Your task to perform on an android device: turn on showing notifications on the lock screen Image 0: 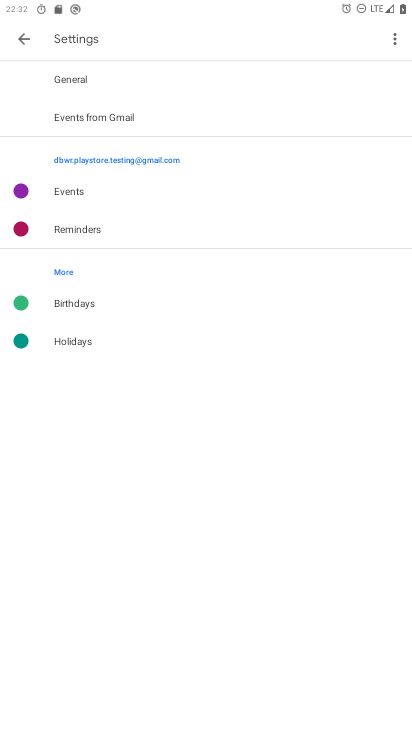
Step 0: click (187, 584)
Your task to perform on an android device: turn on showing notifications on the lock screen Image 1: 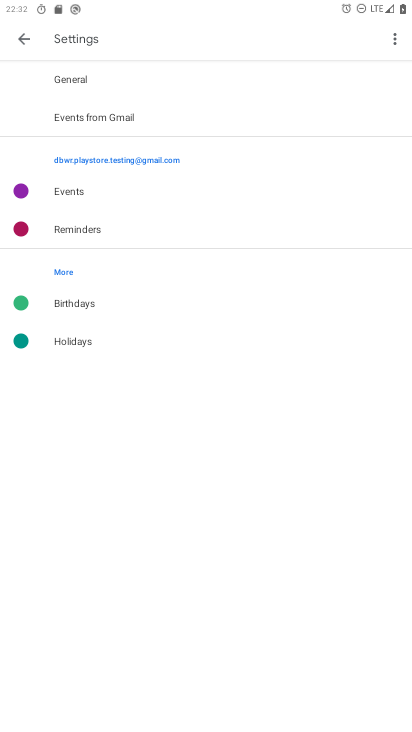
Step 1: press home button
Your task to perform on an android device: turn on showing notifications on the lock screen Image 2: 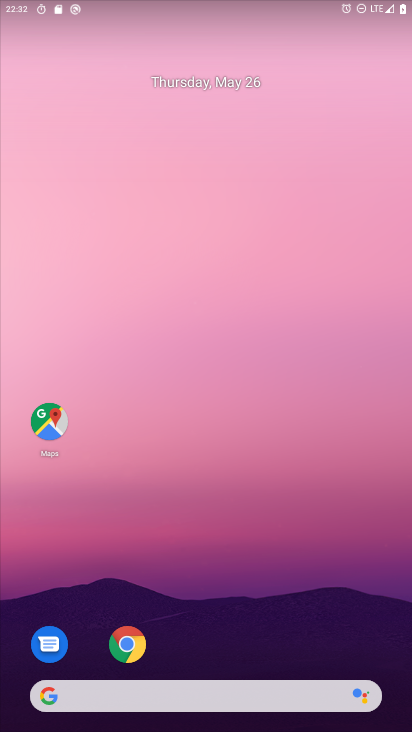
Step 2: drag from (178, 656) to (221, 169)
Your task to perform on an android device: turn on showing notifications on the lock screen Image 3: 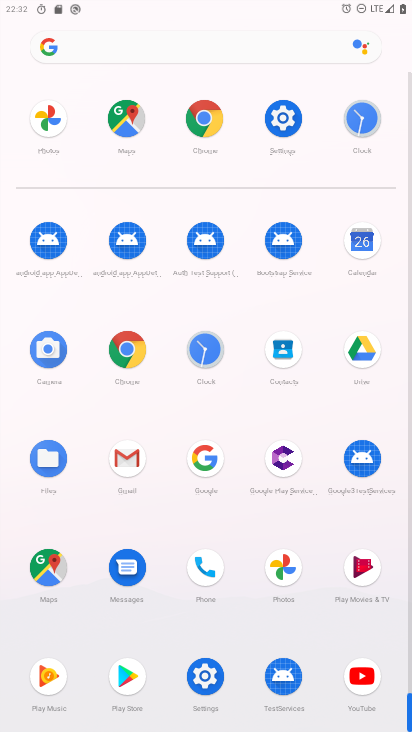
Step 3: click (286, 136)
Your task to perform on an android device: turn on showing notifications on the lock screen Image 4: 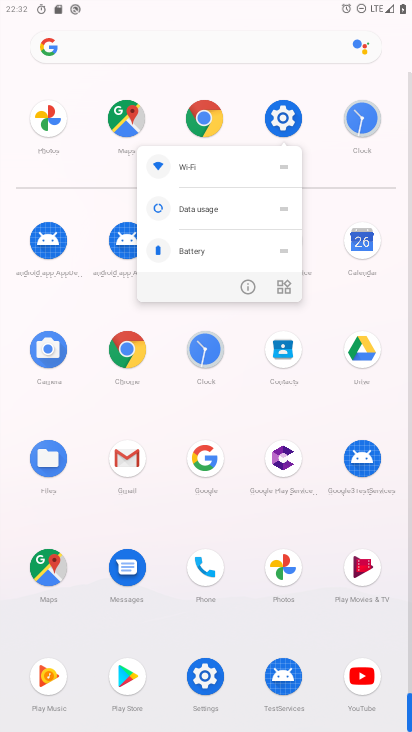
Step 4: click (255, 298)
Your task to perform on an android device: turn on showing notifications on the lock screen Image 5: 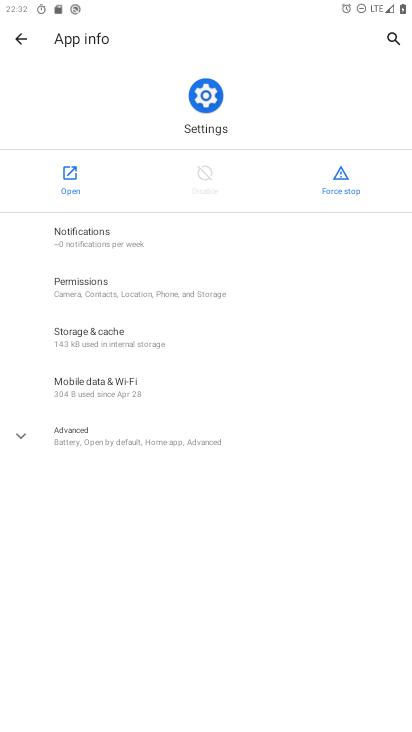
Step 5: click (79, 183)
Your task to perform on an android device: turn on showing notifications on the lock screen Image 6: 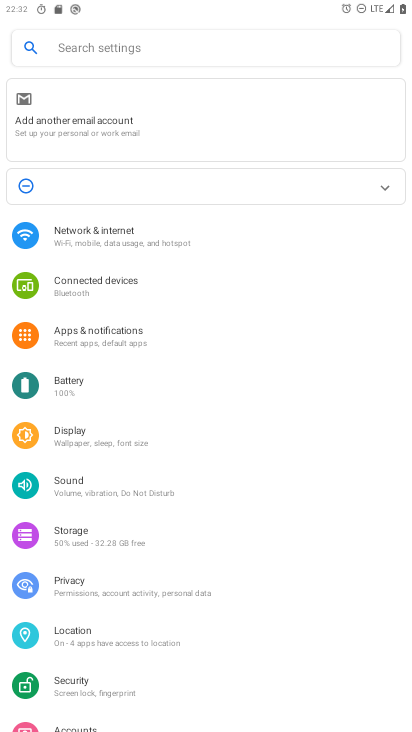
Step 6: click (140, 350)
Your task to perform on an android device: turn on showing notifications on the lock screen Image 7: 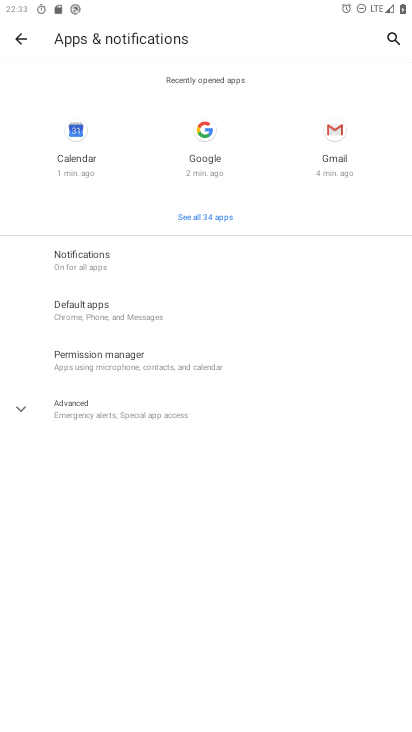
Step 7: click (134, 263)
Your task to perform on an android device: turn on showing notifications on the lock screen Image 8: 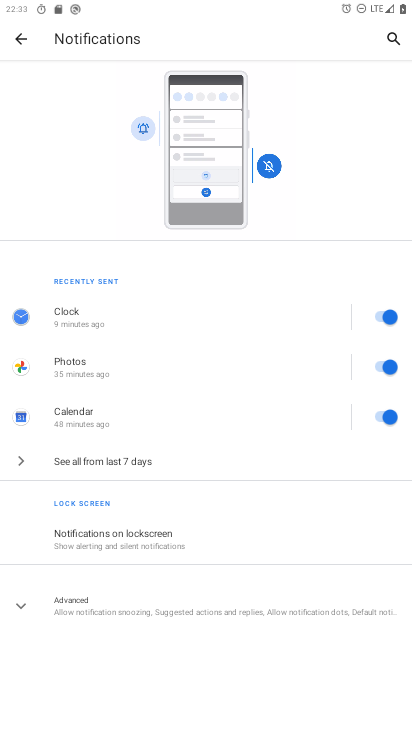
Step 8: click (183, 553)
Your task to perform on an android device: turn on showing notifications on the lock screen Image 9: 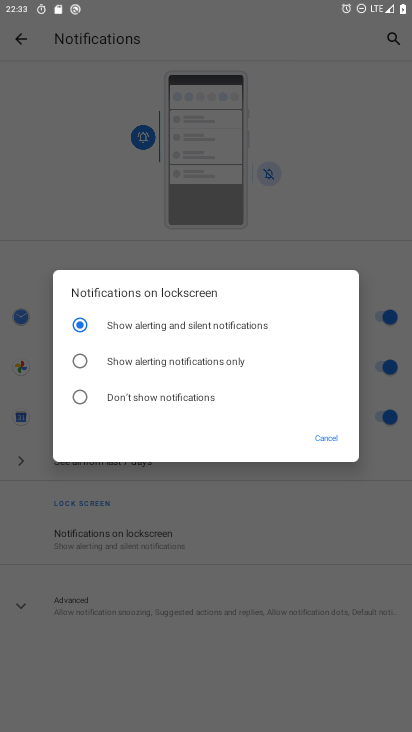
Step 9: click (83, 361)
Your task to perform on an android device: turn on showing notifications on the lock screen Image 10: 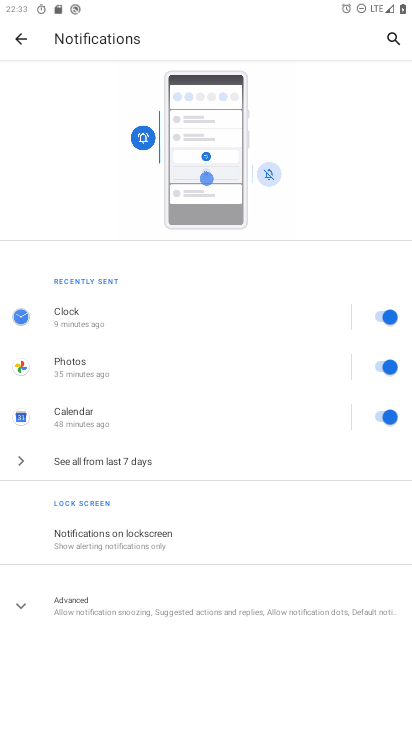
Step 10: task complete